Your task to perform on an android device: Open calendar and show me the first week of next month Image 0: 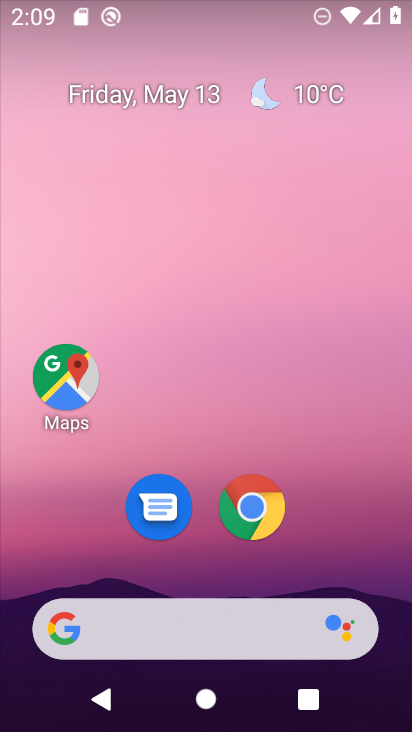
Step 0: drag from (347, 508) to (342, 18)
Your task to perform on an android device: Open calendar and show me the first week of next month Image 1: 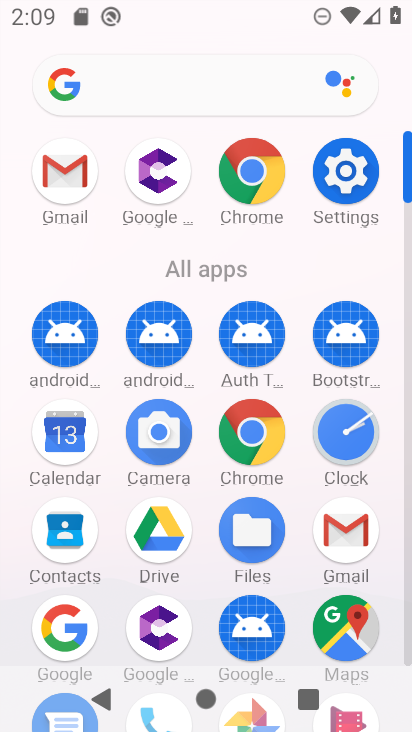
Step 1: click (46, 432)
Your task to perform on an android device: Open calendar and show me the first week of next month Image 2: 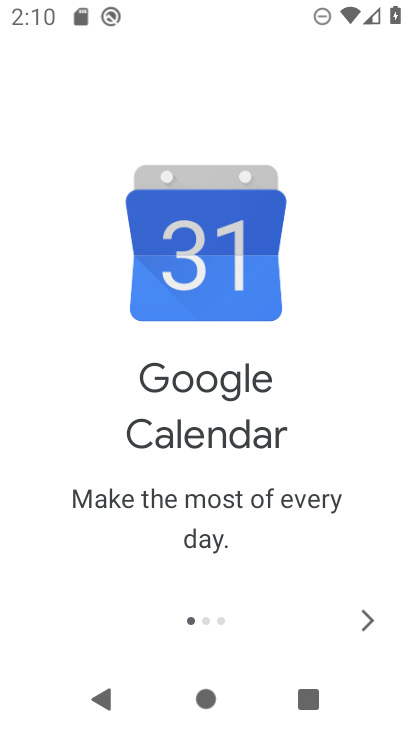
Step 2: click (359, 609)
Your task to perform on an android device: Open calendar and show me the first week of next month Image 3: 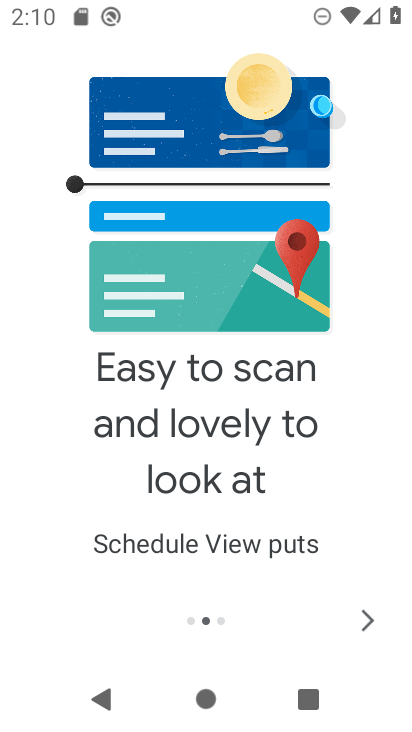
Step 3: click (363, 603)
Your task to perform on an android device: Open calendar and show me the first week of next month Image 4: 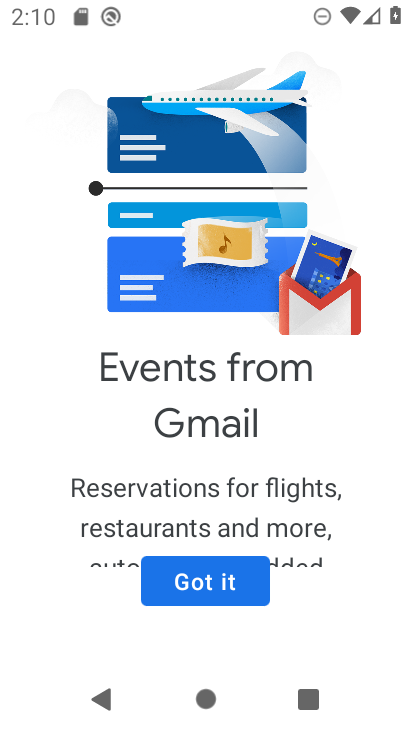
Step 4: click (208, 594)
Your task to perform on an android device: Open calendar and show me the first week of next month Image 5: 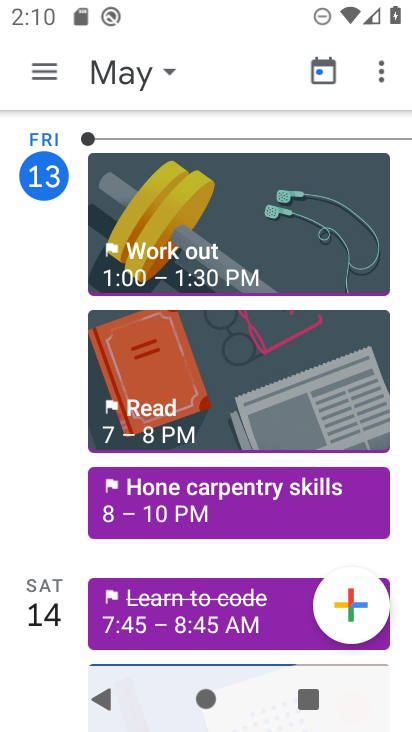
Step 5: click (144, 81)
Your task to perform on an android device: Open calendar and show me the first week of next month Image 6: 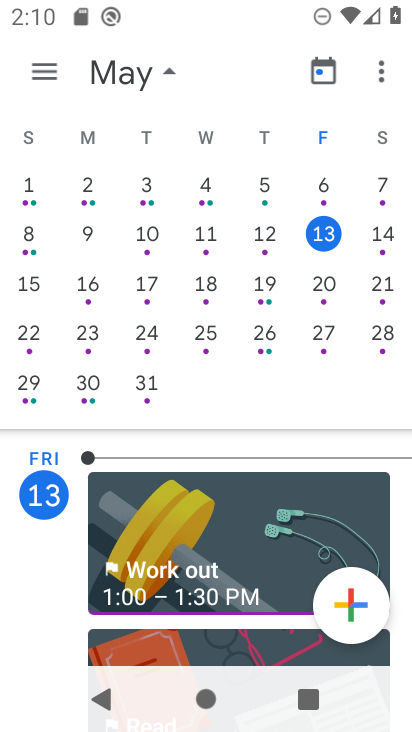
Step 6: drag from (356, 320) to (8, 103)
Your task to perform on an android device: Open calendar and show me the first week of next month Image 7: 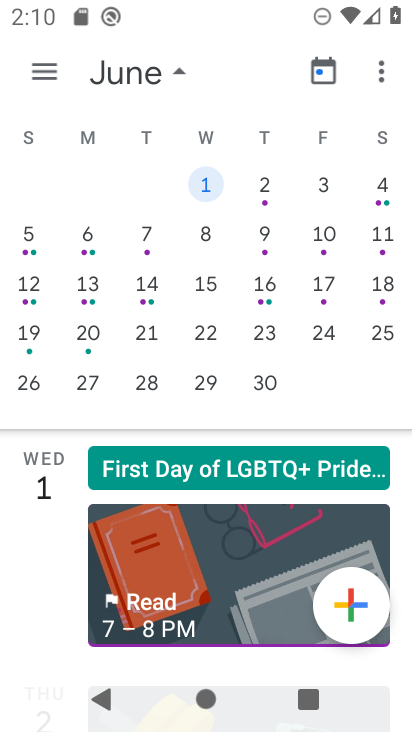
Step 7: click (83, 240)
Your task to perform on an android device: Open calendar and show me the first week of next month Image 8: 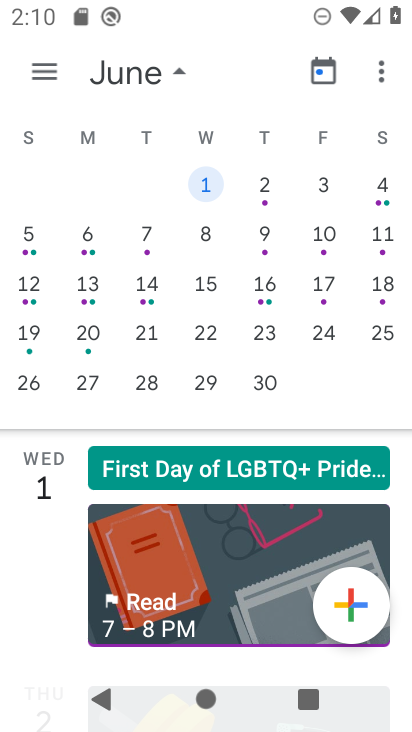
Step 8: task complete